Your task to perform on an android device: turn notification dots off Image 0: 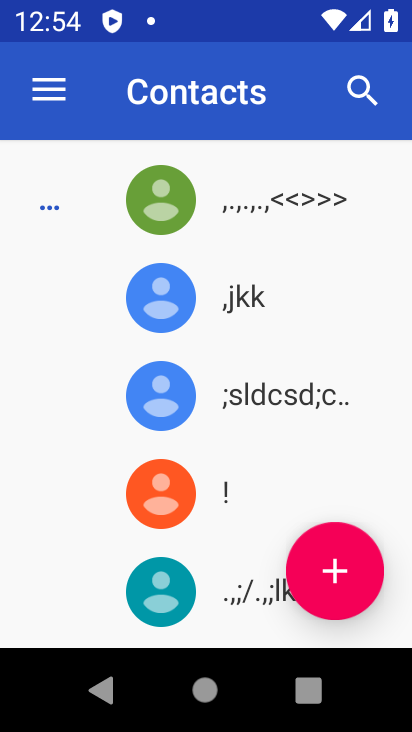
Step 0: press home button
Your task to perform on an android device: turn notification dots off Image 1: 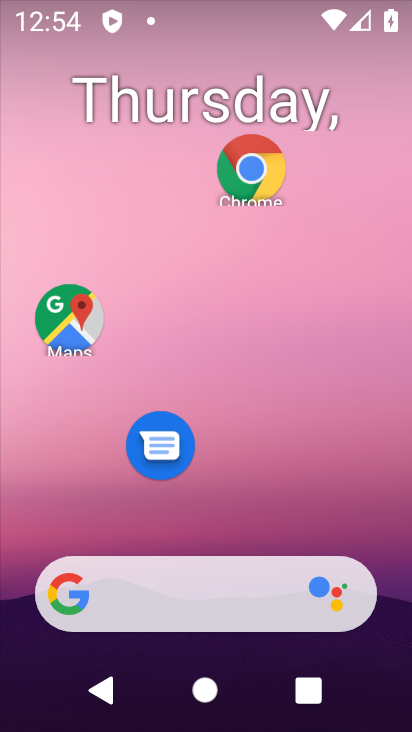
Step 1: drag from (263, 641) to (345, 117)
Your task to perform on an android device: turn notification dots off Image 2: 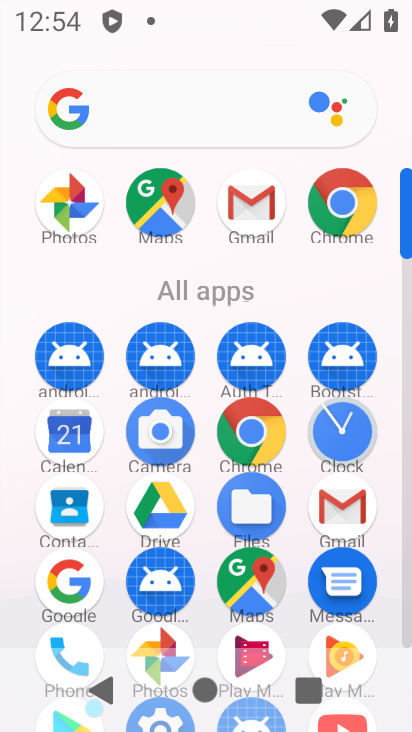
Step 2: drag from (108, 554) to (142, 352)
Your task to perform on an android device: turn notification dots off Image 3: 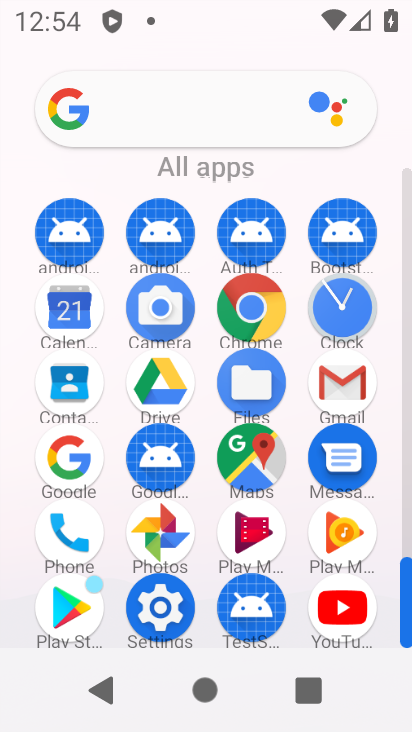
Step 3: click (144, 611)
Your task to perform on an android device: turn notification dots off Image 4: 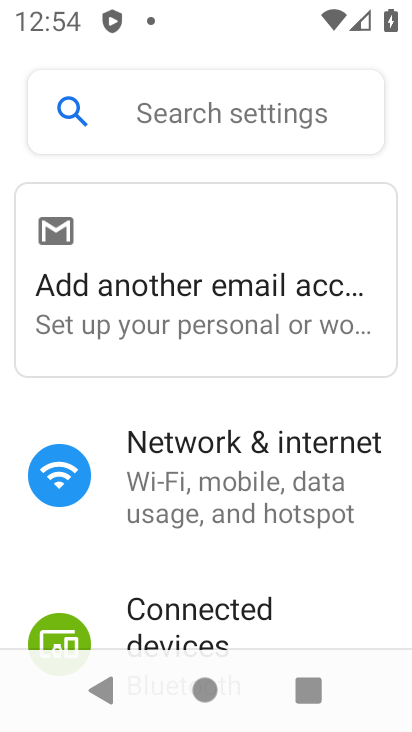
Step 4: click (194, 118)
Your task to perform on an android device: turn notification dots off Image 5: 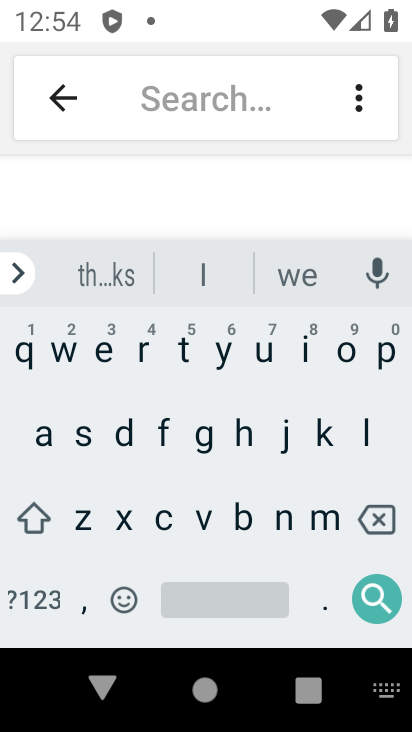
Step 5: click (118, 440)
Your task to perform on an android device: turn notification dots off Image 6: 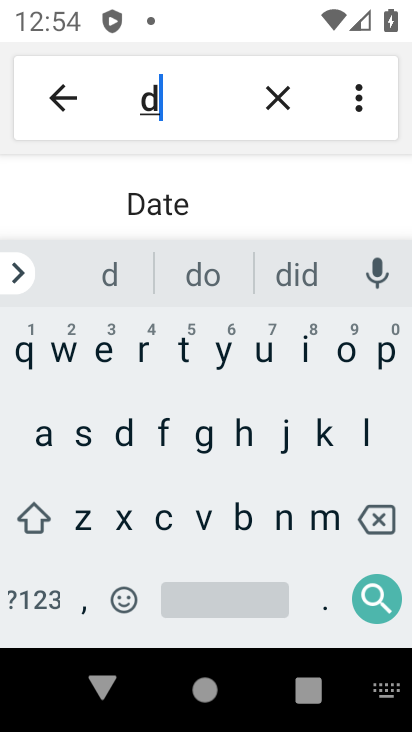
Step 6: click (346, 357)
Your task to perform on an android device: turn notification dots off Image 7: 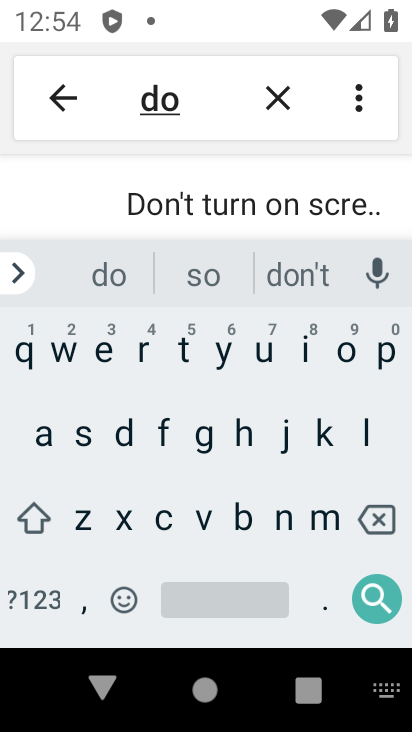
Step 7: click (187, 359)
Your task to perform on an android device: turn notification dots off Image 8: 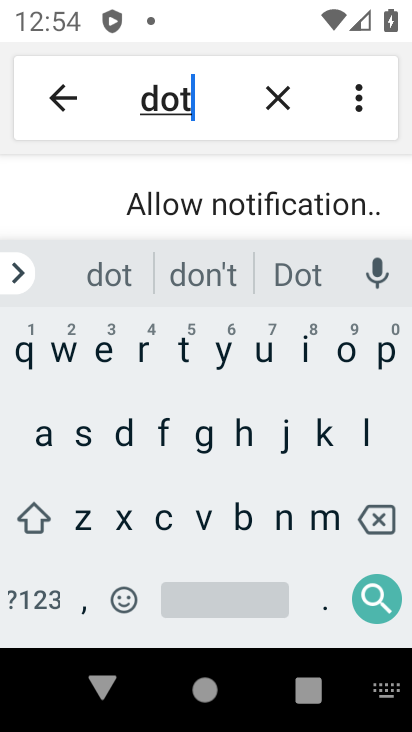
Step 8: press back button
Your task to perform on an android device: turn notification dots off Image 9: 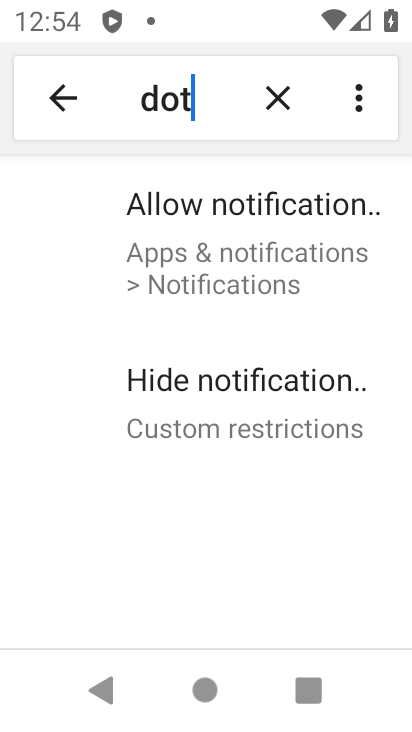
Step 9: click (224, 216)
Your task to perform on an android device: turn notification dots off Image 10: 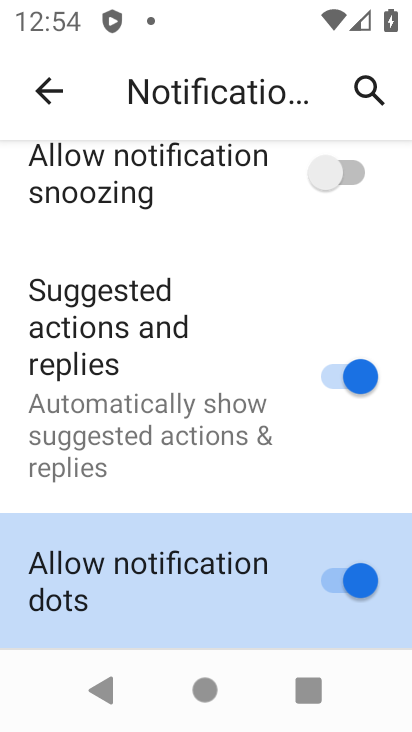
Step 10: click (195, 567)
Your task to perform on an android device: turn notification dots off Image 11: 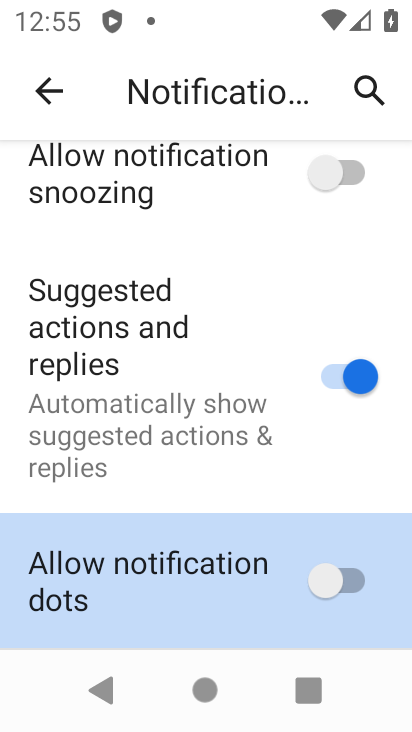
Step 11: task complete